Your task to perform on an android device: toggle javascript in the chrome app Image 0: 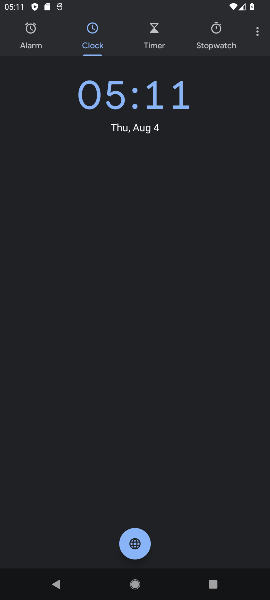
Step 0: press home button
Your task to perform on an android device: toggle javascript in the chrome app Image 1: 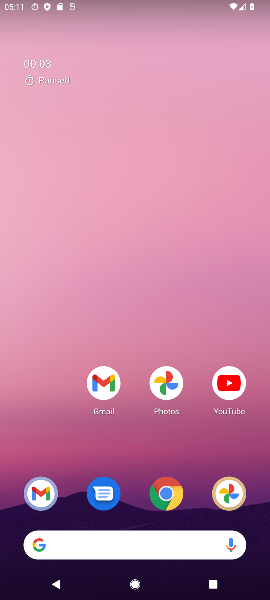
Step 1: click (172, 479)
Your task to perform on an android device: toggle javascript in the chrome app Image 2: 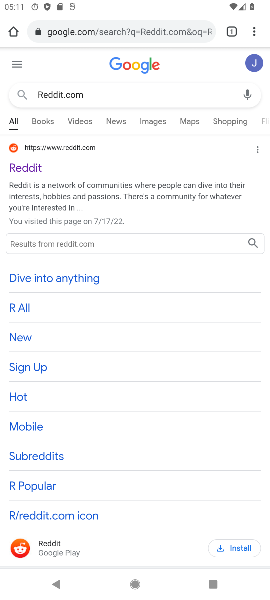
Step 2: click (258, 40)
Your task to perform on an android device: toggle javascript in the chrome app Image 3: 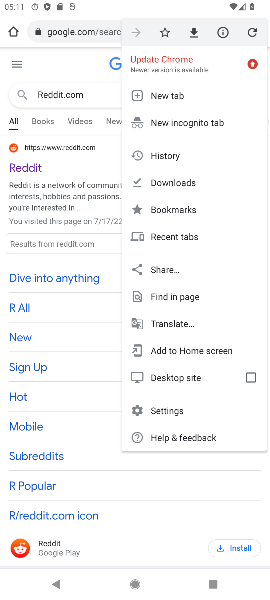
Step 3: click (174, 411)
Your task to perform on an android device: toggle javascript in the chrome app Image 4: 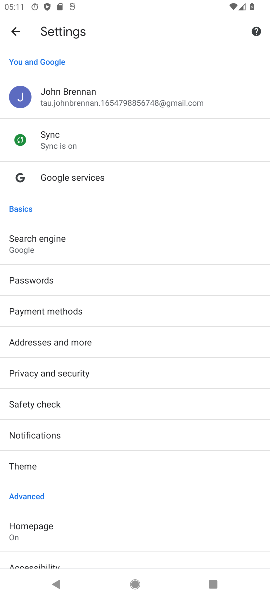
Step 4: drag from (93, 481) to (106, 255)
Your task to perform on an android device: toggle javascript in the chrome app Image 5: 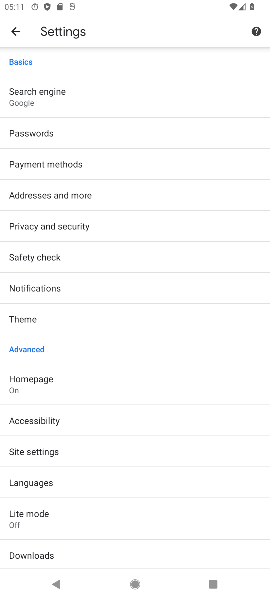
Step 5: click (43, 450)
Your task to perform on an android device: toggle javascript in the chrome app Image 6: 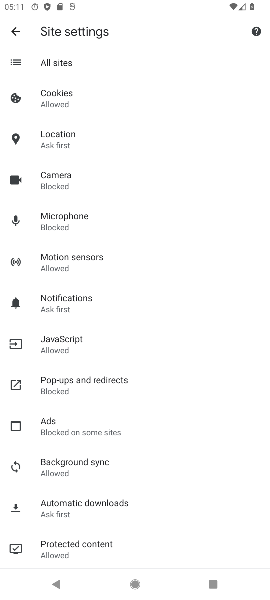
Step 6: click (49, 343)
Your task to perform on an android device: toggle javascript in the chrome app Image 7: 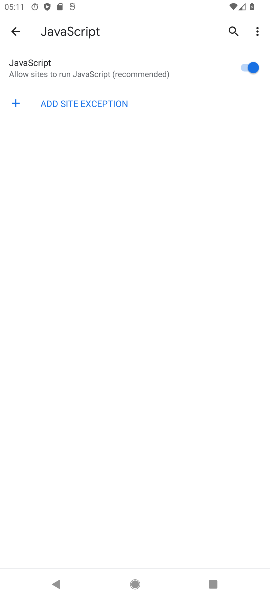
Step 7: task complete